Your task to perform on an android device: Empty the shopping cart on walmart.com. Image 0: 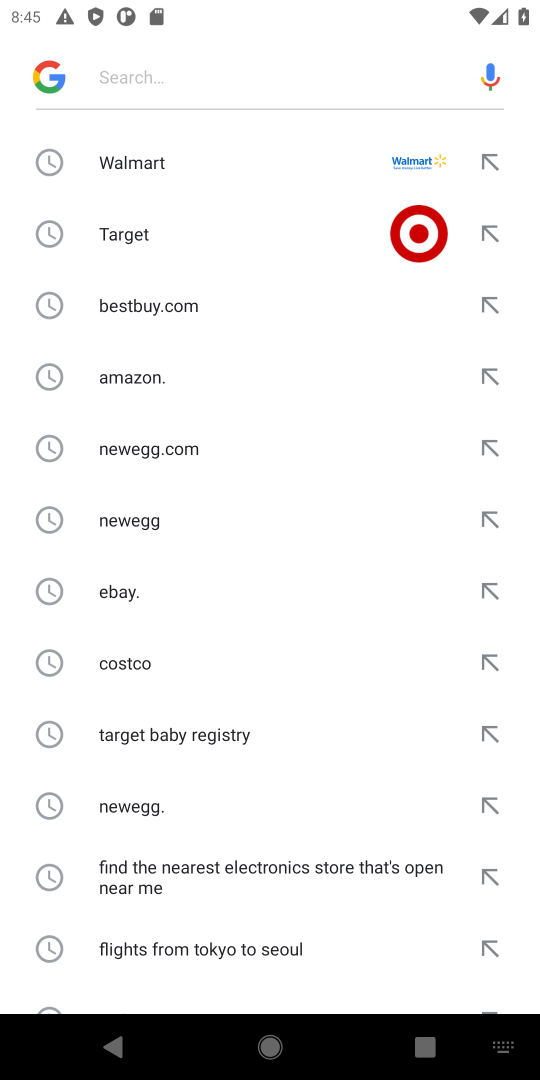
Step 0: press home button
Your task to perform on an android device: Empty the shopping cart on walmart.com. Image 1: 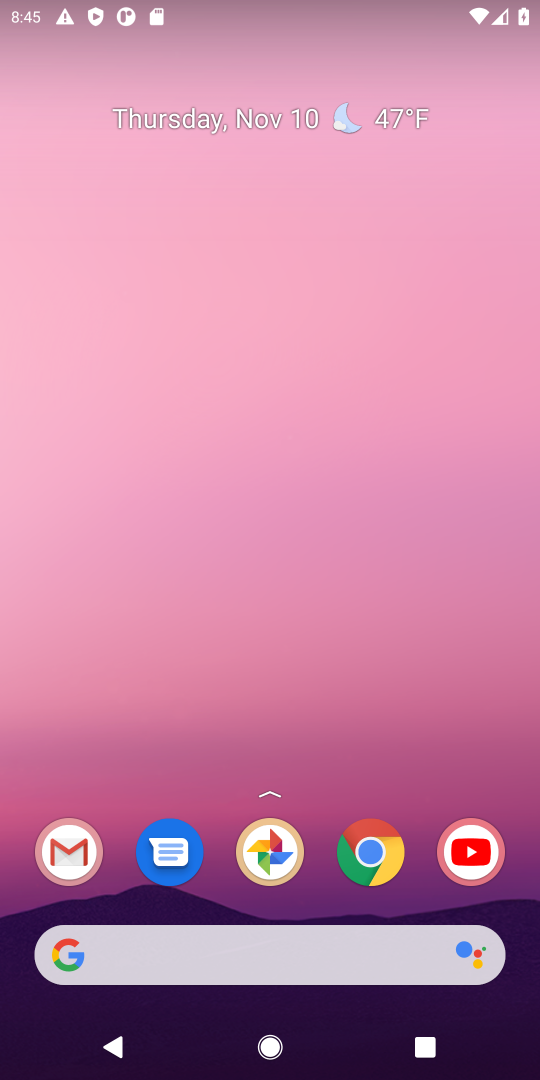
Step 1: click (388, 850)
Your task to perform on an android device: Empty the shopping cart on walmart.com. Image 2: 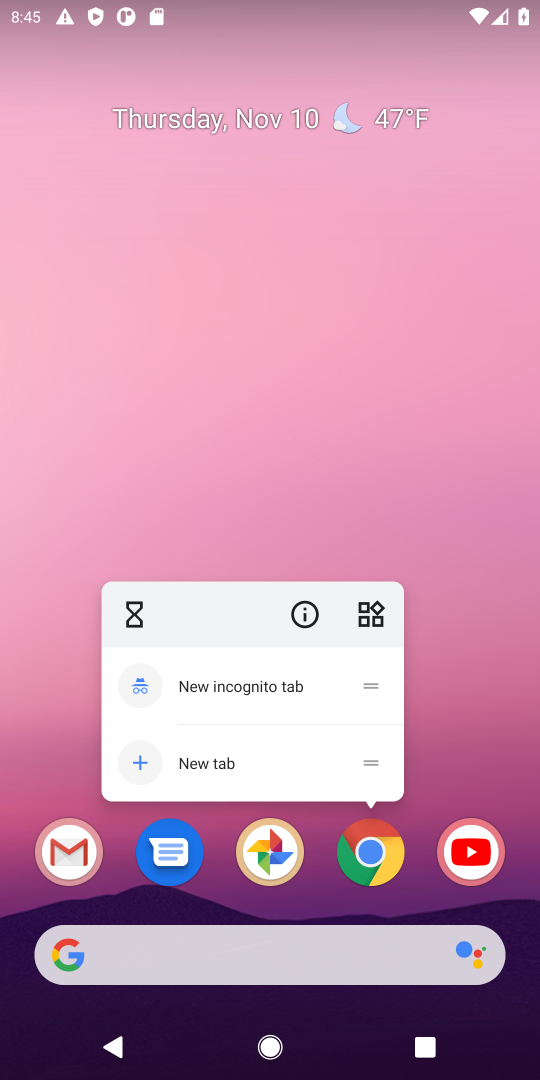
Step 2: click (379, 843)
Your task to perform on an android device: Empty the shopping cart on walmart.com. Image 3: 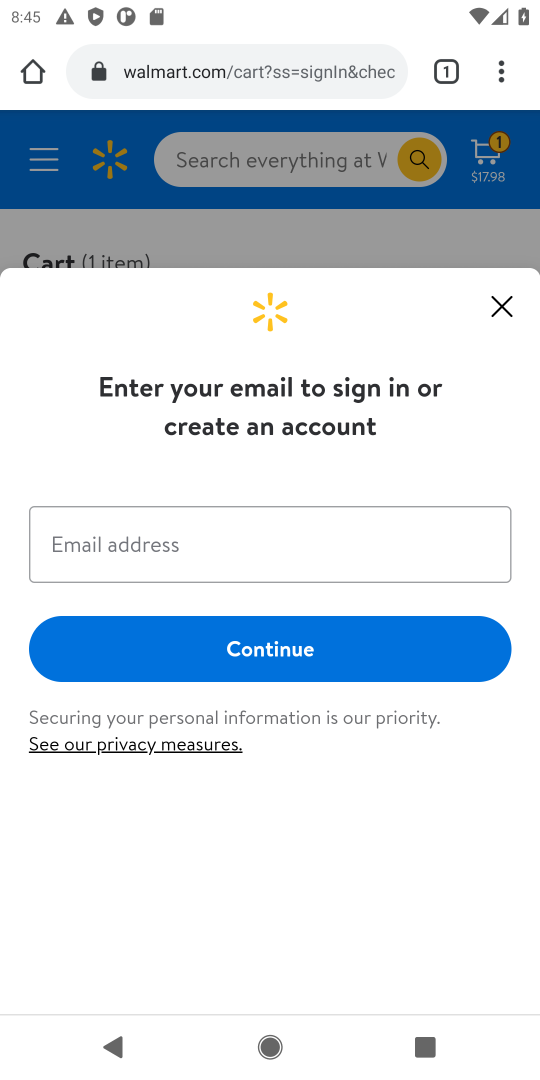
Step 3: click (490, 309)
Your task to perform on an android device: Empty the shopping cart on walmart.com. Image 4: 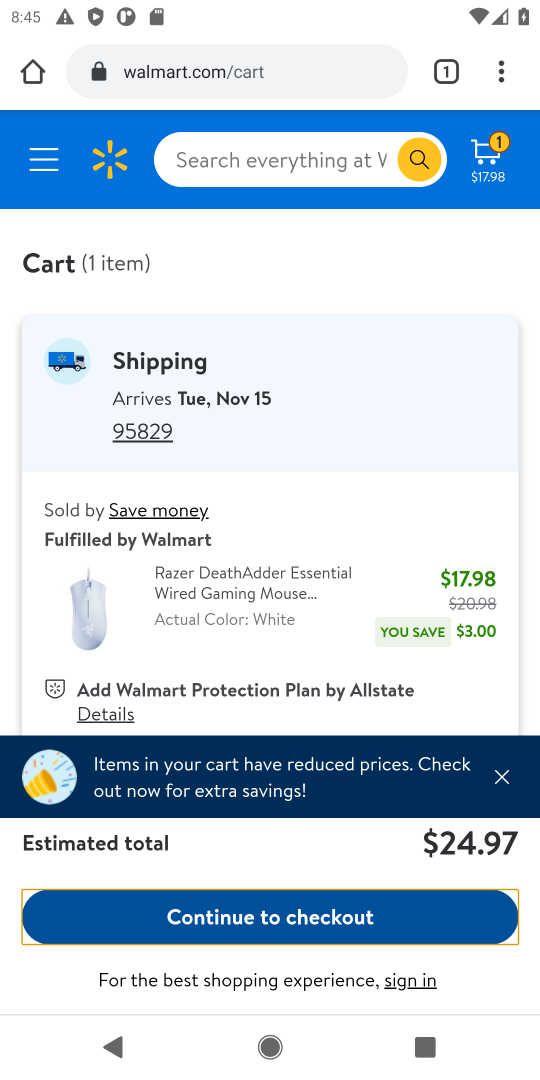
Step 4: drag from (316, 632) to (474, 275)
Your task to perform on an android device: Empty the shopping cart on walmart.com. Image 5: 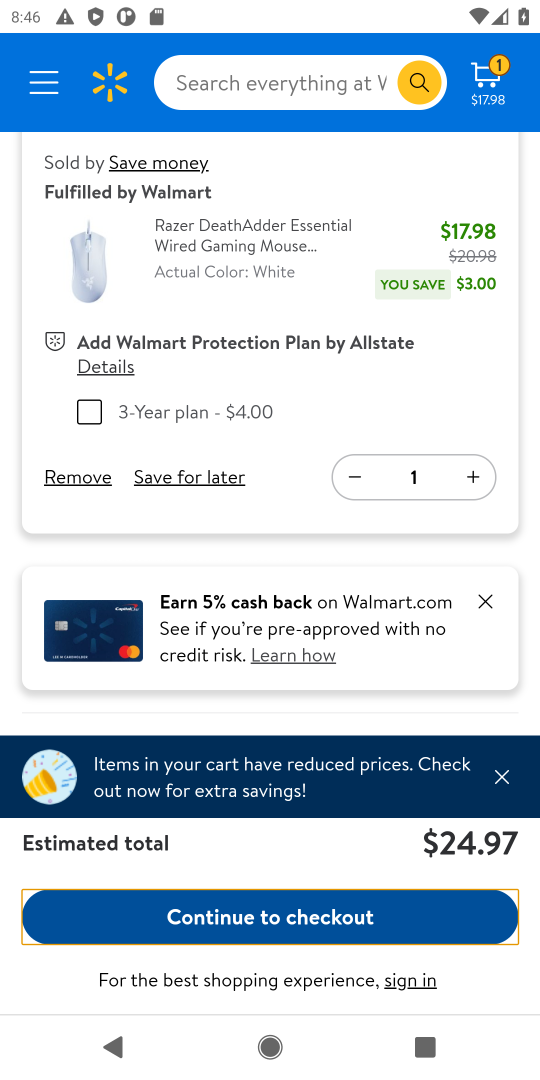
Step 5: click (79, 472)
Your task to perform on an android device: Empty the shopping cart on walmart.com. Image 6: 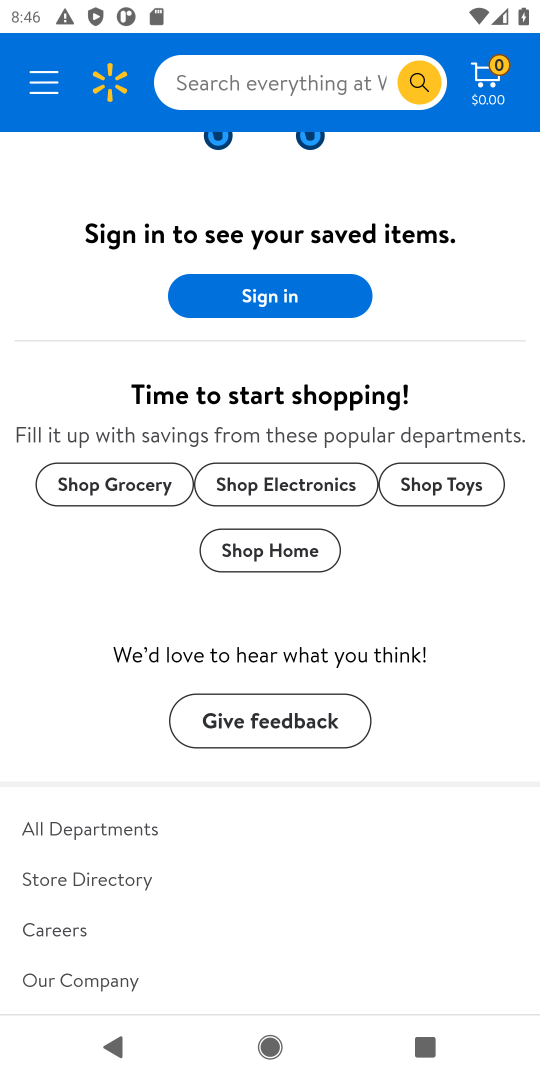
Step 6: task complete